Your task to perform on an android device: Show me productivity apps on the Play Store Image 0: 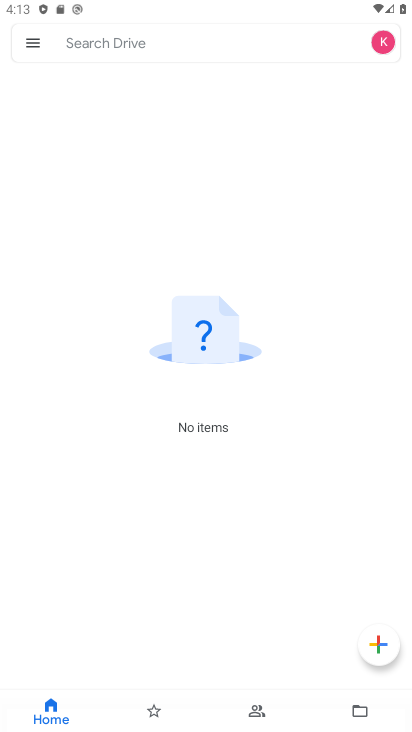
Step 0: press home button
Your task to perform on an android device: Show me productivity apps on the Play Store Image 1: 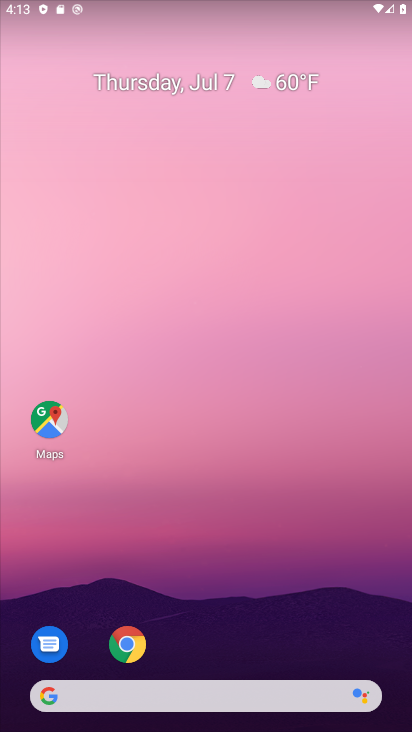
Step 1: drag from (228, 592) to (115, 120)
Your task to perform on an android device: Show me productivity apps on the Play Store Image 2: 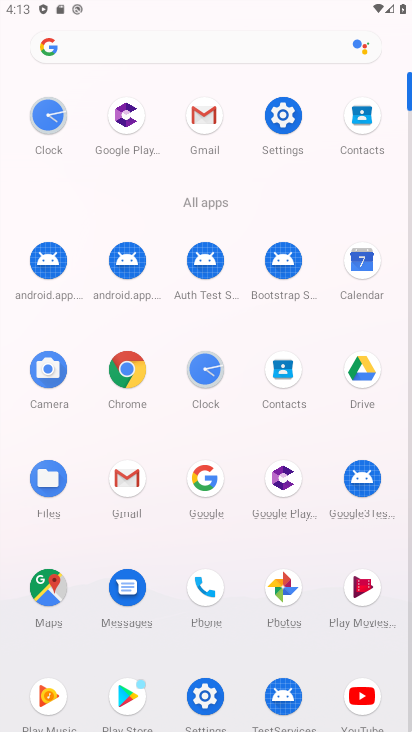
Step 2: click (122, 693)
Your task to perform on an android device: Show me productivity apps on the Play Store Image 3: 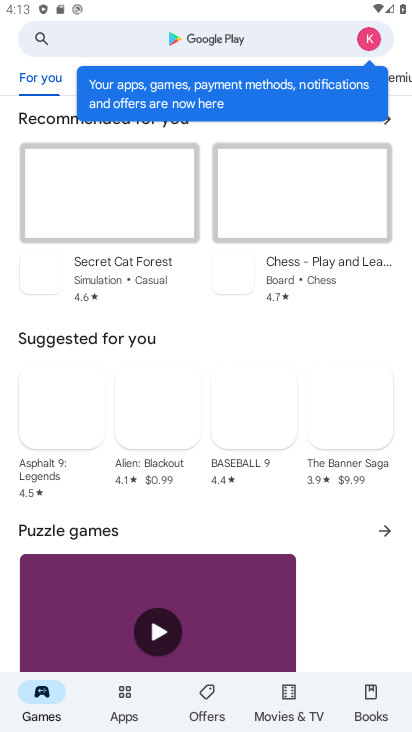
Step 3: click (127, 713)
Your task to perform on an android device: Show me productivity apps on the Play Store Image 4: 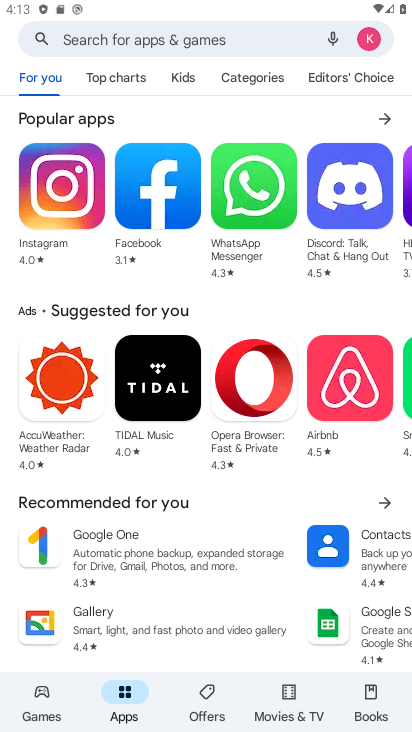
Step 4: click (273, 86)
Your task to perform on an android device: Show me productivity apps on the Play Store Image 5: 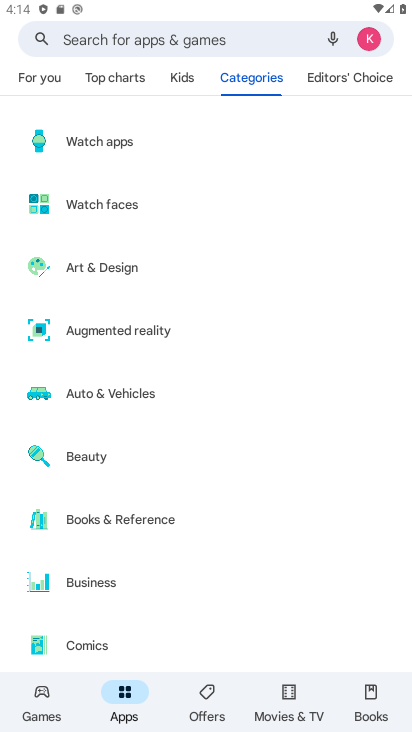
Step 5: drag from (118, 636) to (100, 204)
Your task to perform on an android device: Show me productivity apps on the Play Store Image 6: 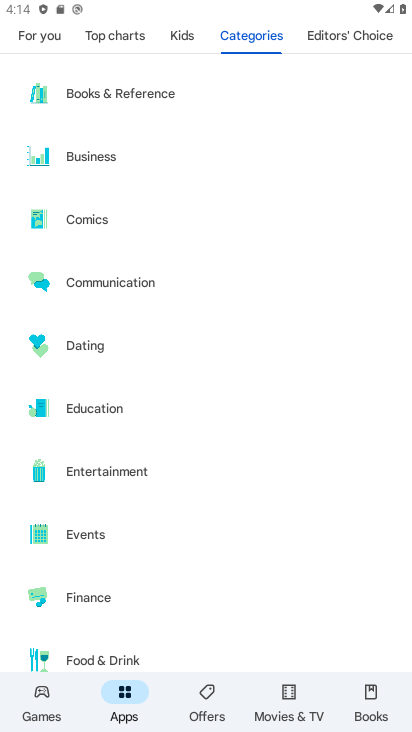
Step 6: drag from (127, 554) to (84, 264)
Your task to perform on an android device: Show me productivity apps on the Play Store Image 7: 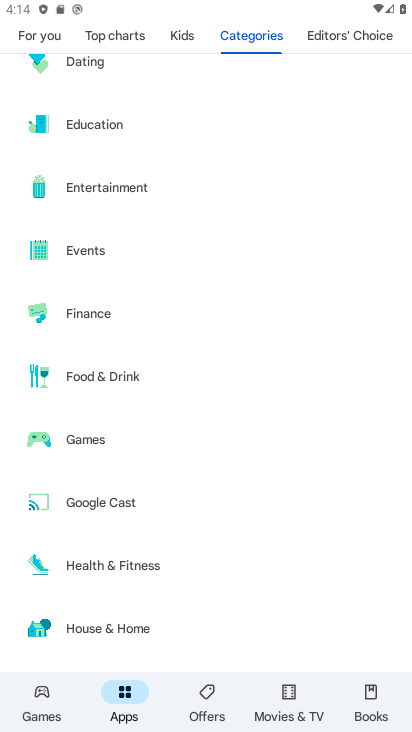
Step 7: drag from (154, 609) to (111, 157)
Your task to perform on an android device: Show me productivity apps on the Play Store Image 8: 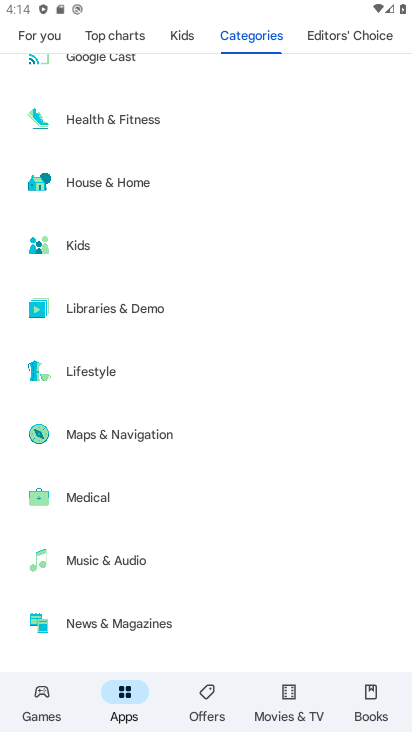
Step 8: drag from (126, 584) to (70, 213)
Your task to perform on an android device: Show me productivity apps on the Play Store Image 9: 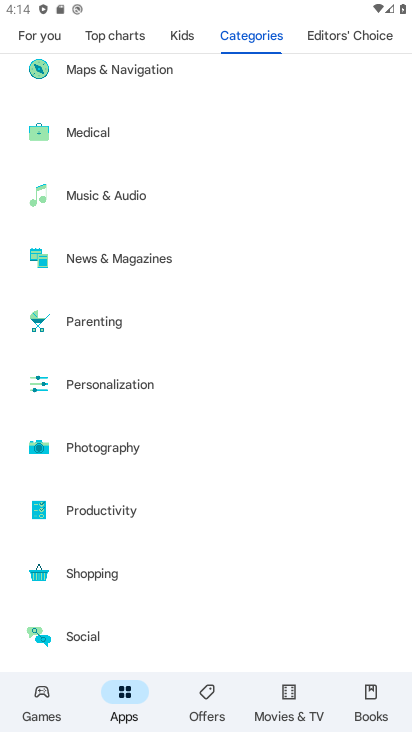
Step 9: click (117, 514)
Your task to perform on an android device: Show me productivity apps on the Play Store Image 10: 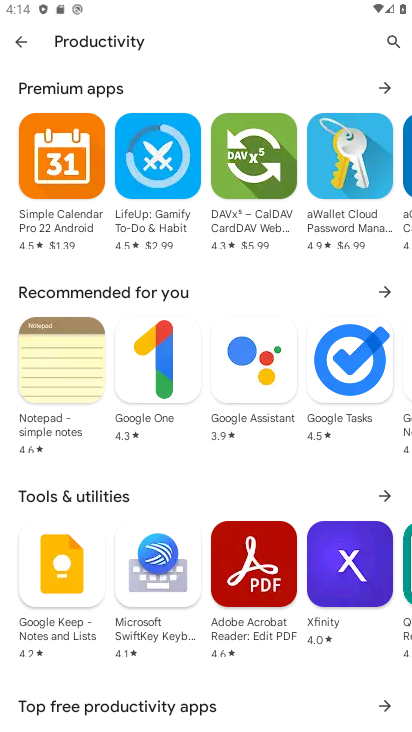
Step 10: task complete